Your task to perform on an android device: add a contact Image 0: 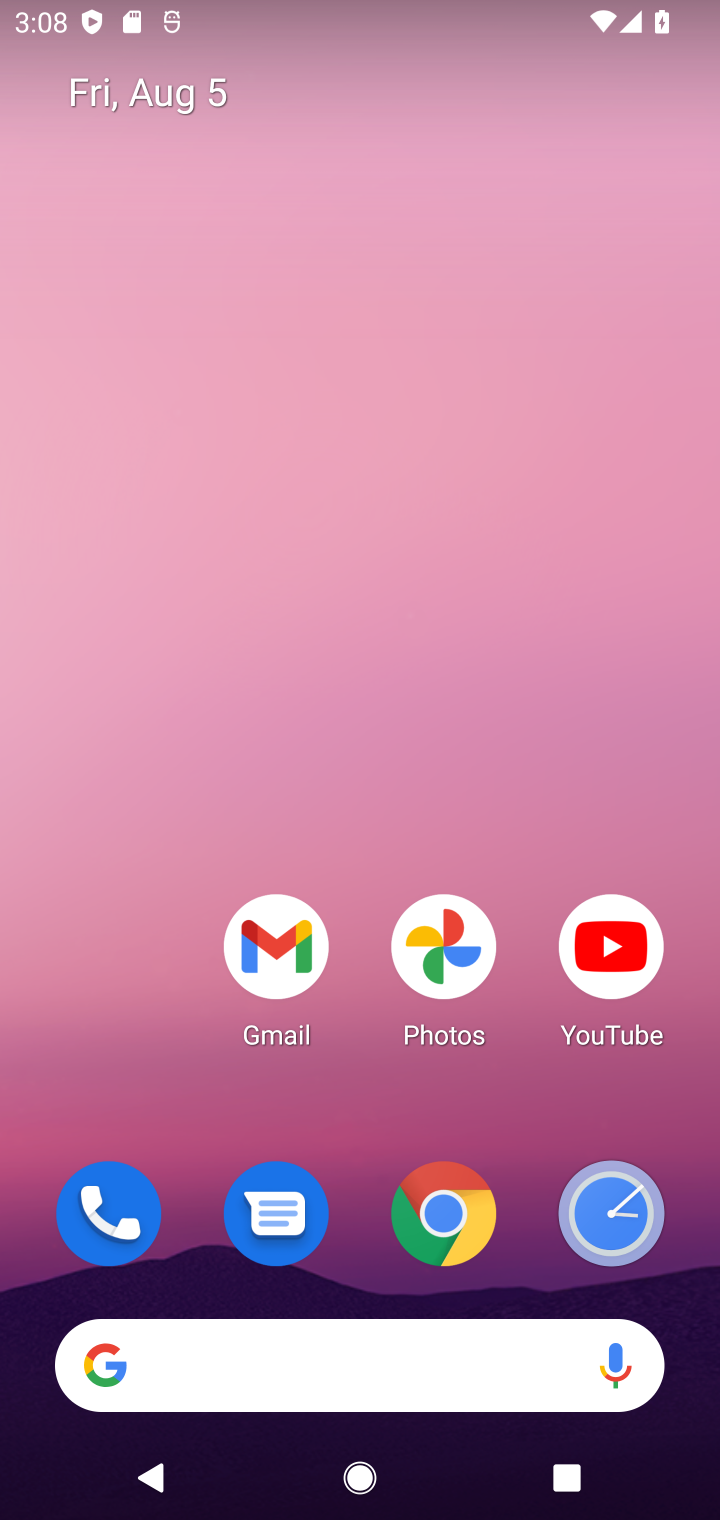
Step 0: drag from (130, 1096) to (239, 153)
Your task to perform on an android device: add a contact Image 1: 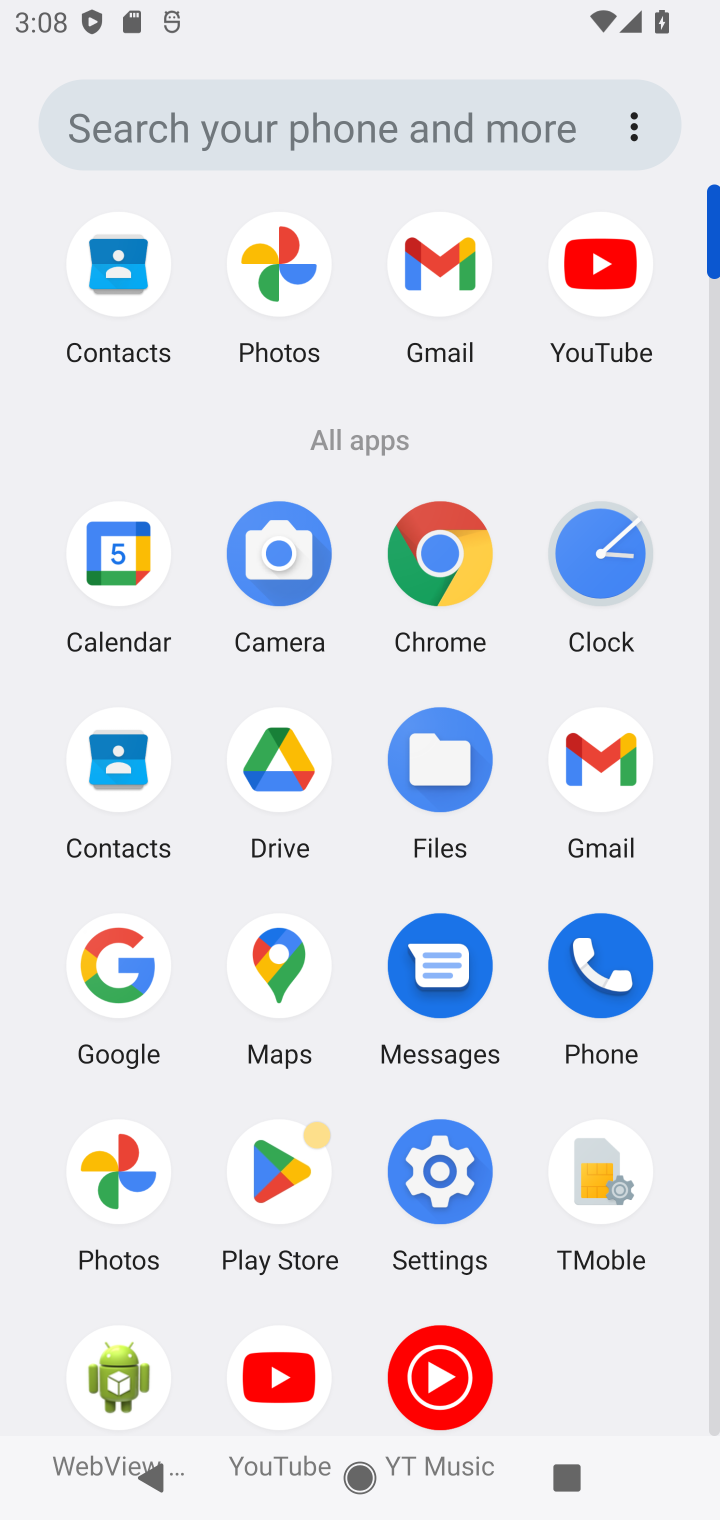
Step 1: click (133, 744)
Your task to perform on an android device: add a contact Image 2: 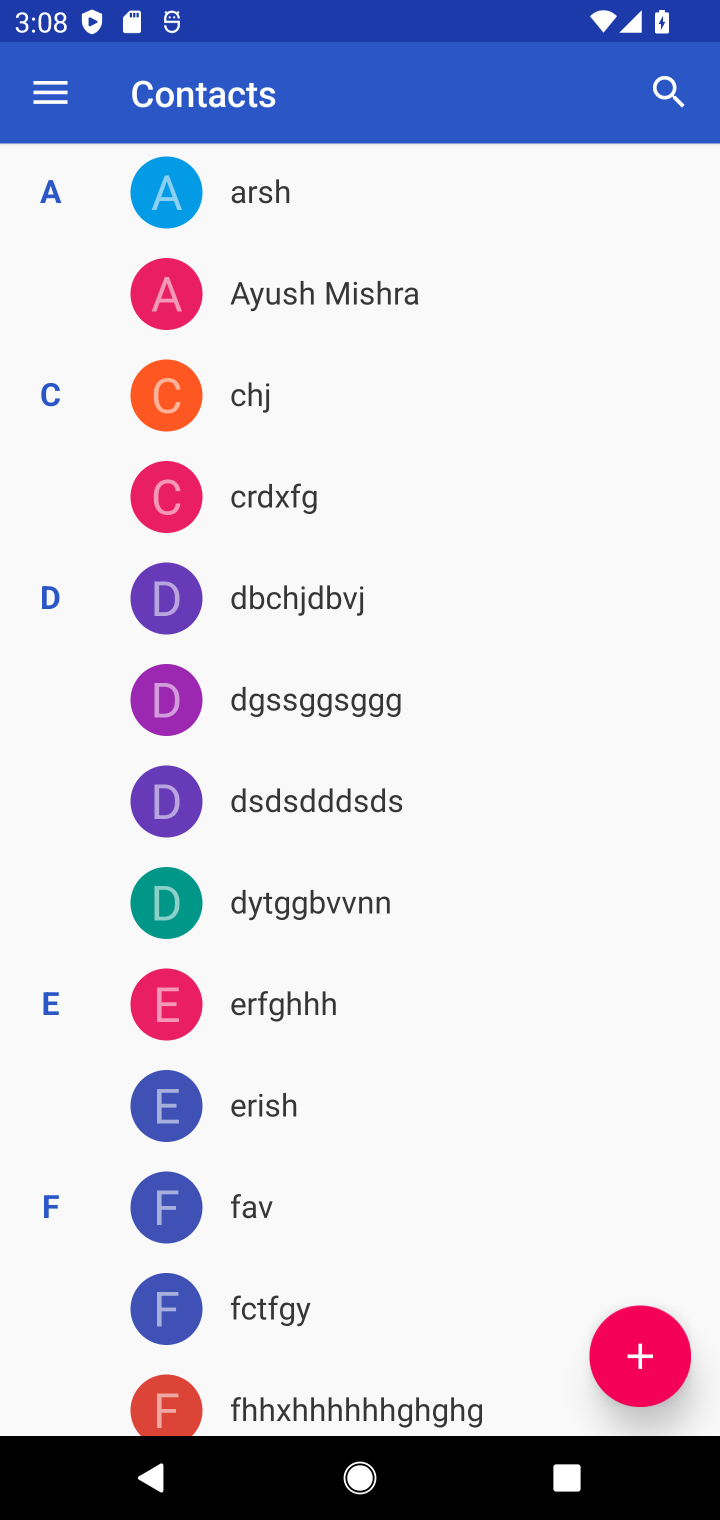
Step 2: click (648, 1353)
Your task to perform on an android device: add a contact Image 3: 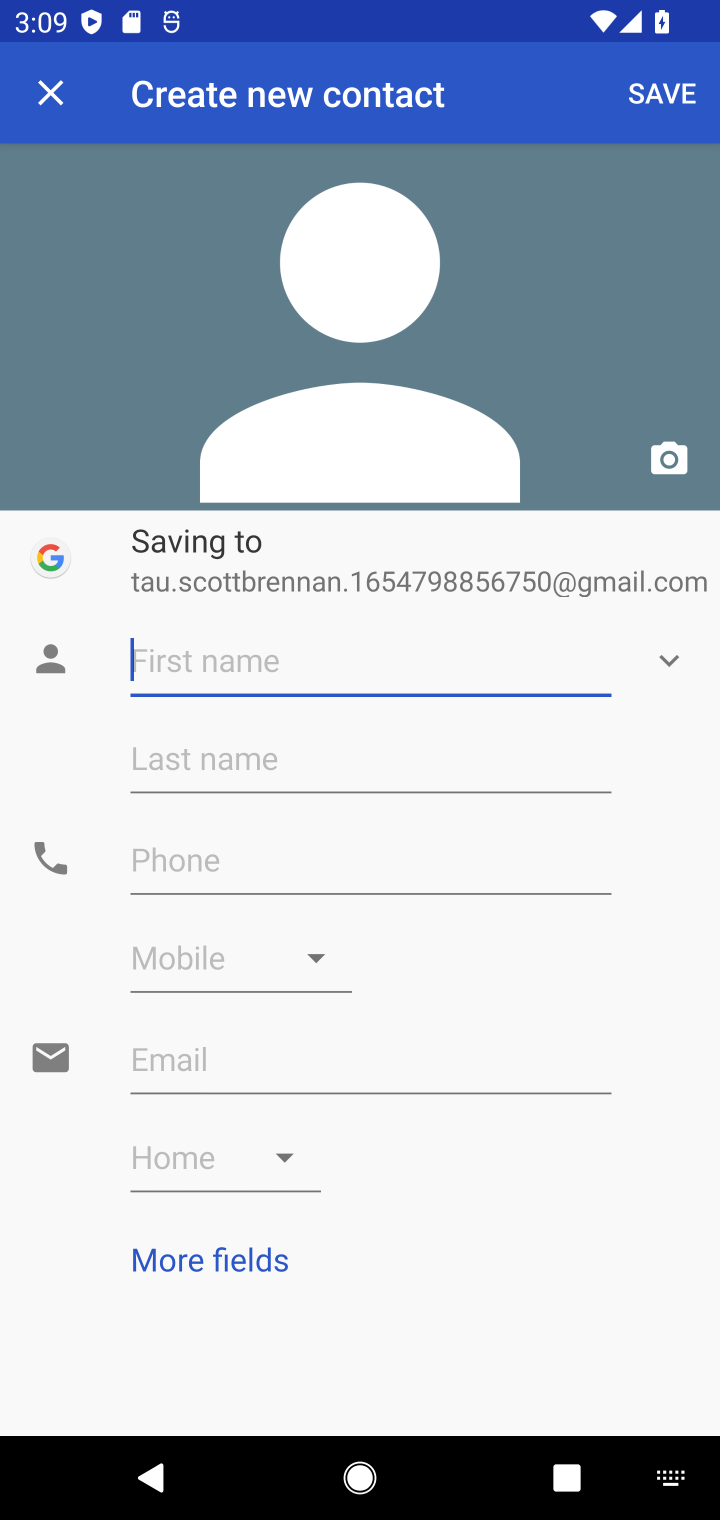
Step 3: type "Abba"
Your task to perform on an android device: add a contact Image 4: 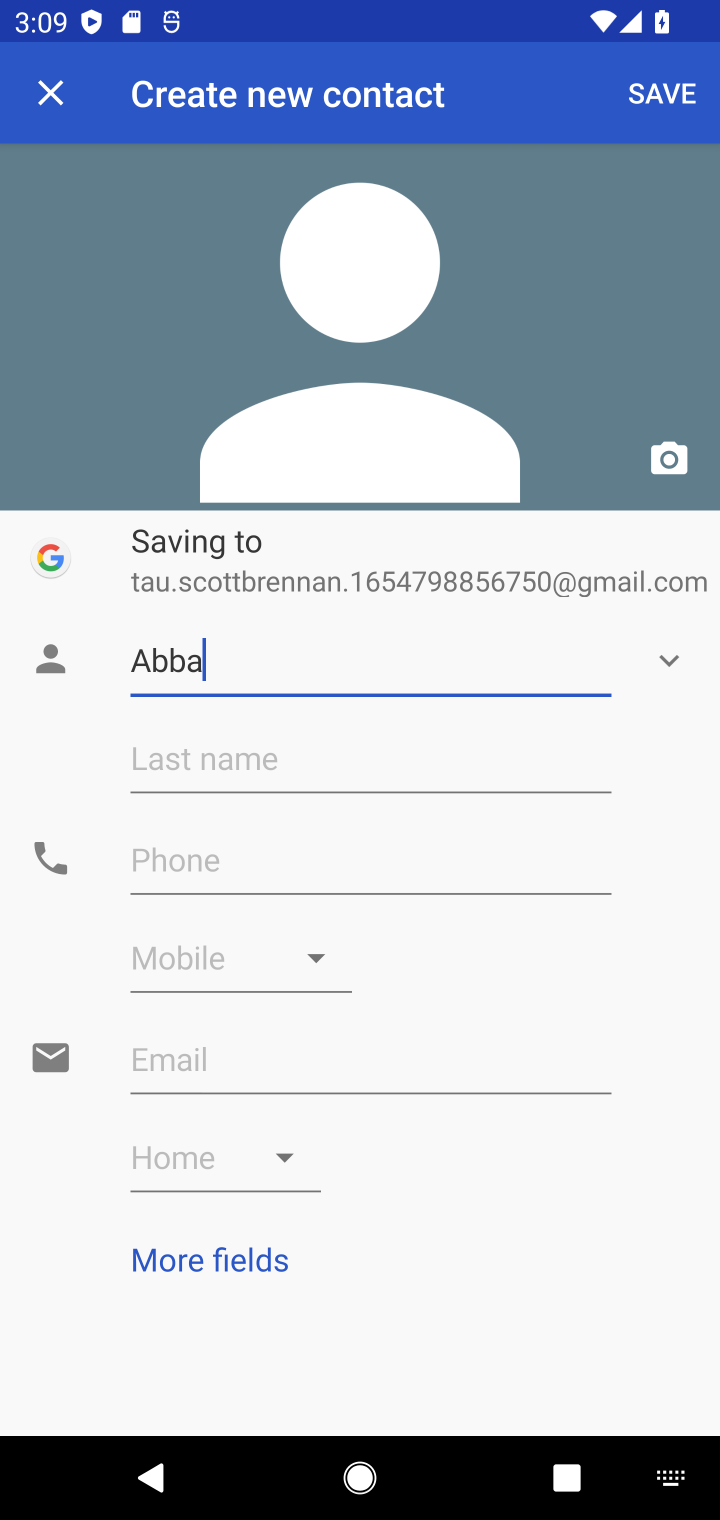
Step 4: click (399, 879)
Your task to perform on an android device: add a contact Image 5: 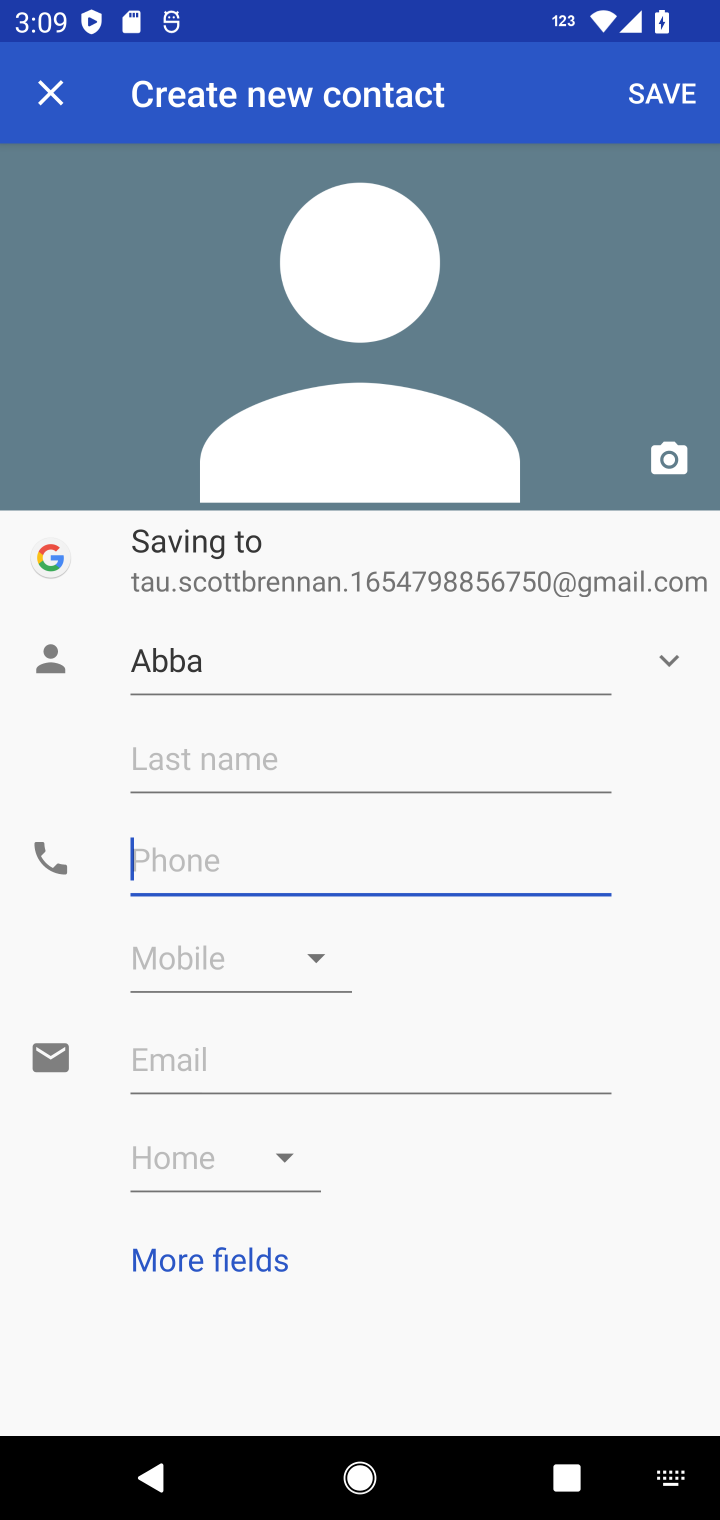
Step 5: type "ooooooooo"
Your task to perform on an android device: add a contact Image 6: 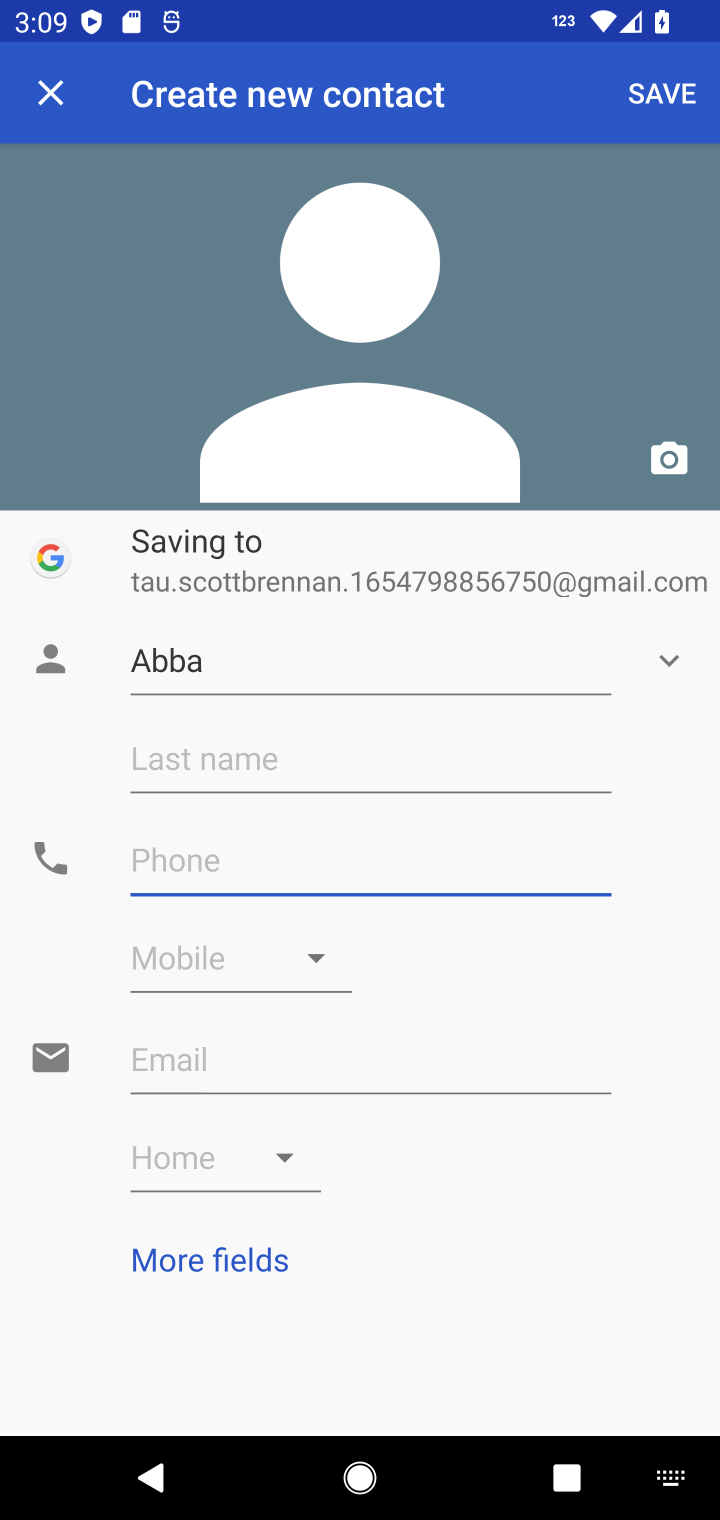
Step 6: type "900000000"
Your task to perform on an android device: add a contact Image 7: 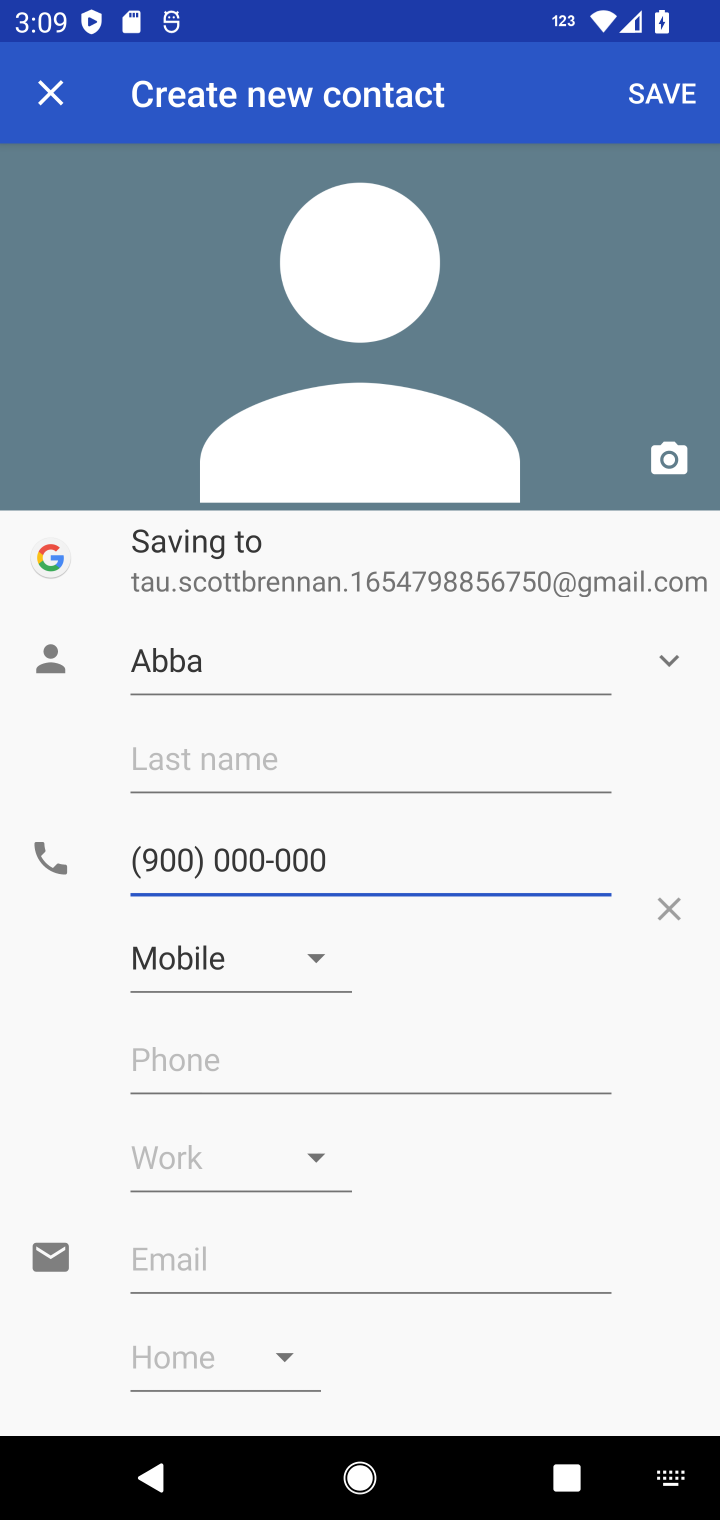
Step 7: click (674, 90)
Your task to perform on an android device: add a contact Image 8: 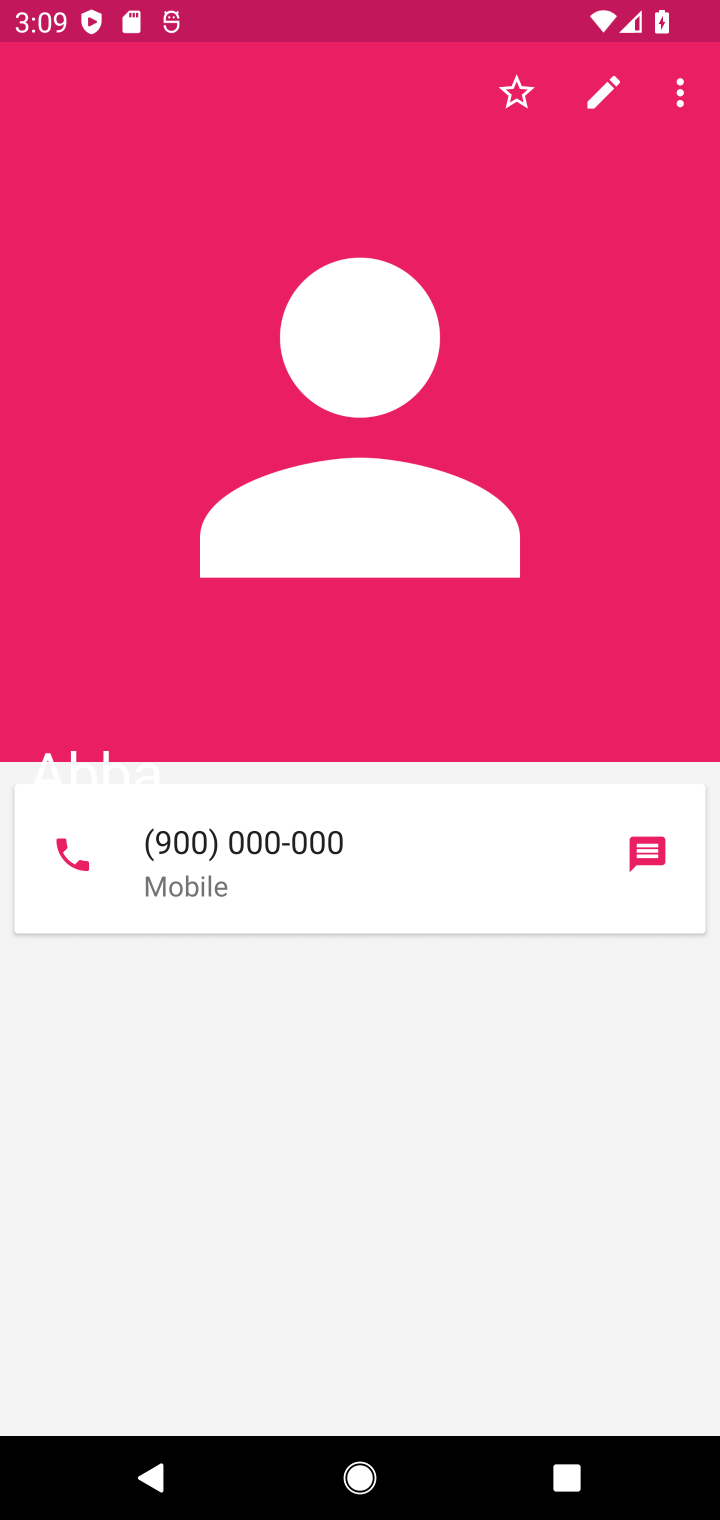
Step 8: task complete